Your task to perform on an android device: open app "Spotify: Music and Podcasts" (install if not already installed) and enter user name: "principled@inbox.com" and password: "arrests" Image 0: 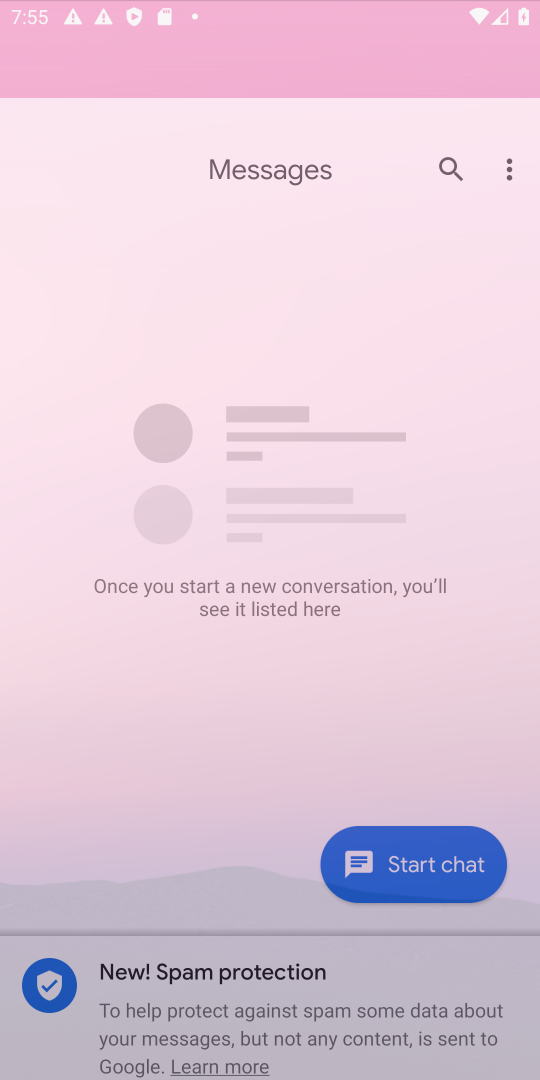
Step 0: press home button
Your task to perform on an android device: open app "Spotify: Music and Podcasts" (install if not already installed) and enter user name: "principled@inbox.com" and password: "arrests" Image 1: 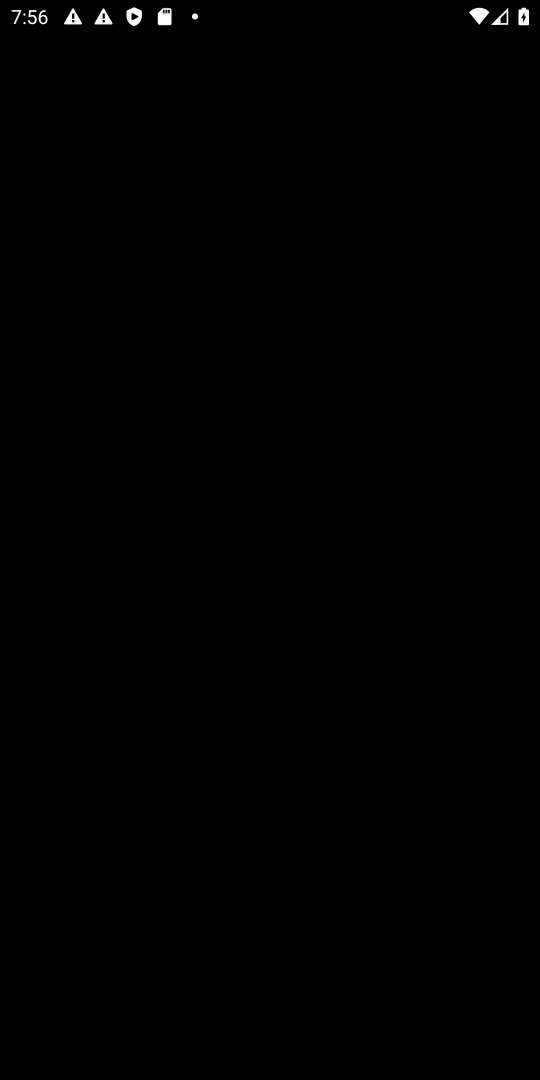
Step 1: press home button
Your task to perform on an android device: open app "Spotify: Music and Podcasts" (install if not already installed) and enter user name: "principled@inbox.com" and password: "arrests" Image 2: 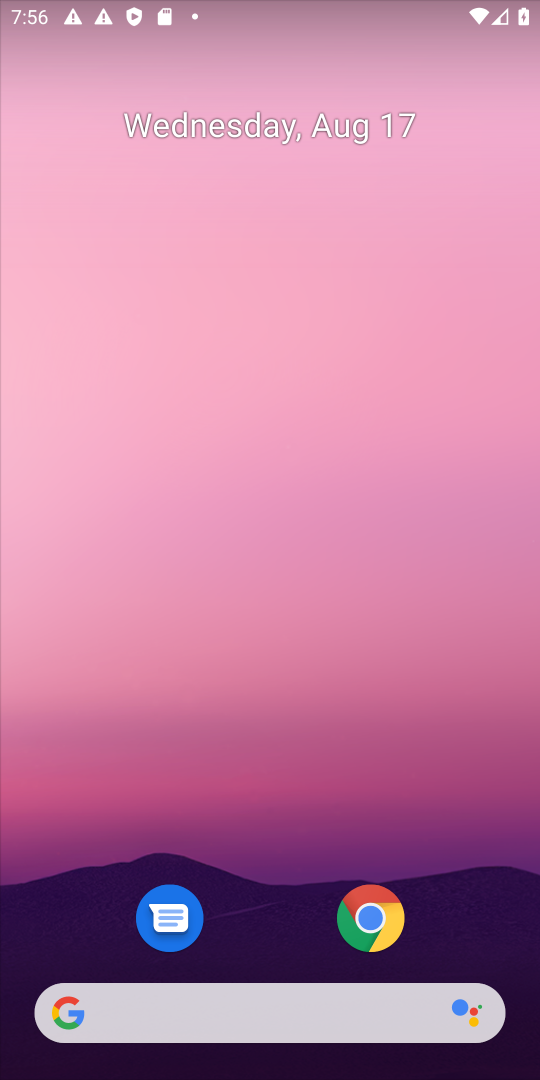
Step 2: drag from (264, 1000) to (474, 290)
Your task to perform on an android device: open app "Spotify: Music and Podcasts" (install if not already installed) and enter user name: "principled@inbox.com" and password: "arrests" Image 3: 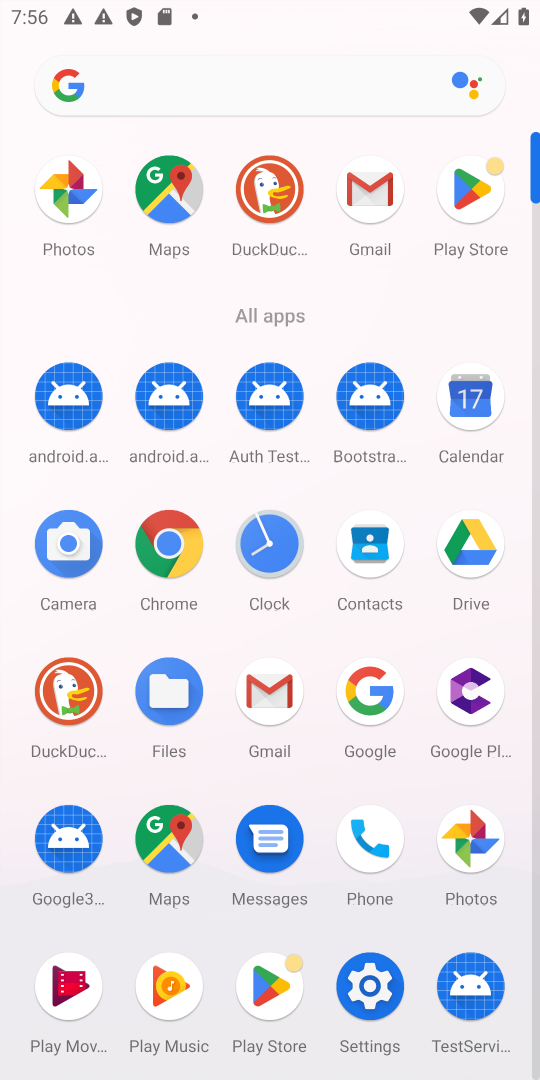
Step 3: drag from (278, 987) to (226, 396)
Your task to perform on an android device: open app "Spotify: Music and Podcasts" (install if not already installed) and enter user name: "principled@inbox.com" and password: "arrests" Image 4: 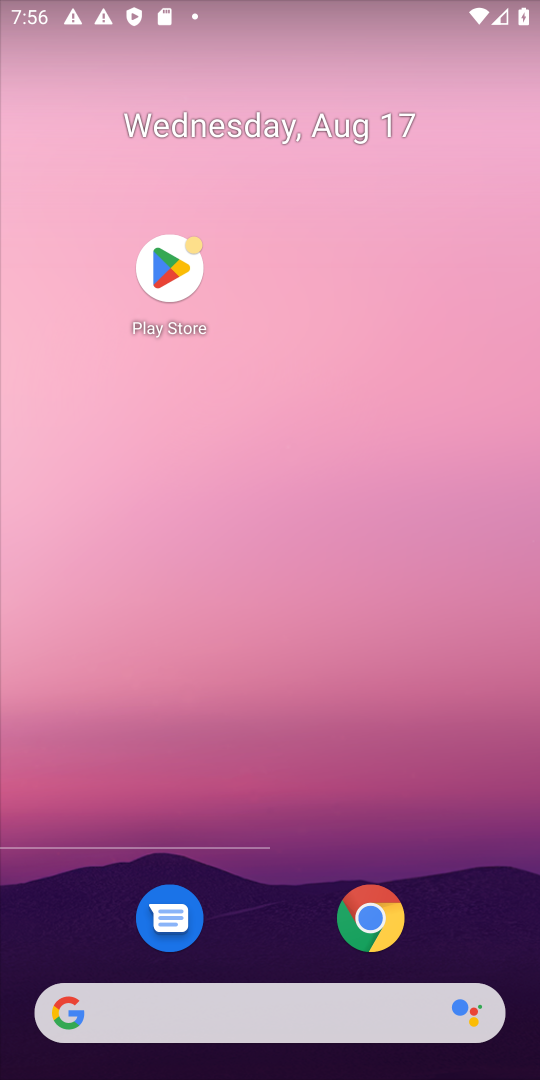
Step 4: drag from (180, 274) to (251, 574)
Your task to perform on an android device: open app "Spotify: Music and Podcasts" (install if not already installed) and enter user name: "principled@inbox.com" and password: "arrests" Image 5: 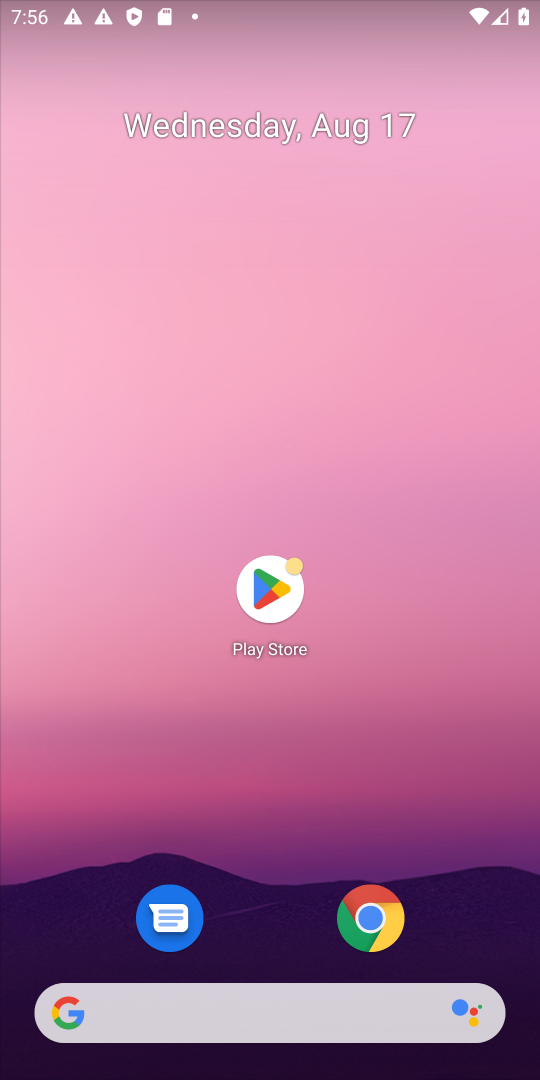
Step 5: click (283, 578)
Your task to perform on an android device: open app "Spotify: Music and Podcasts" (install if not already installed) and enter user name: "principled@inbox.com" and password: "arrests" Image 6: 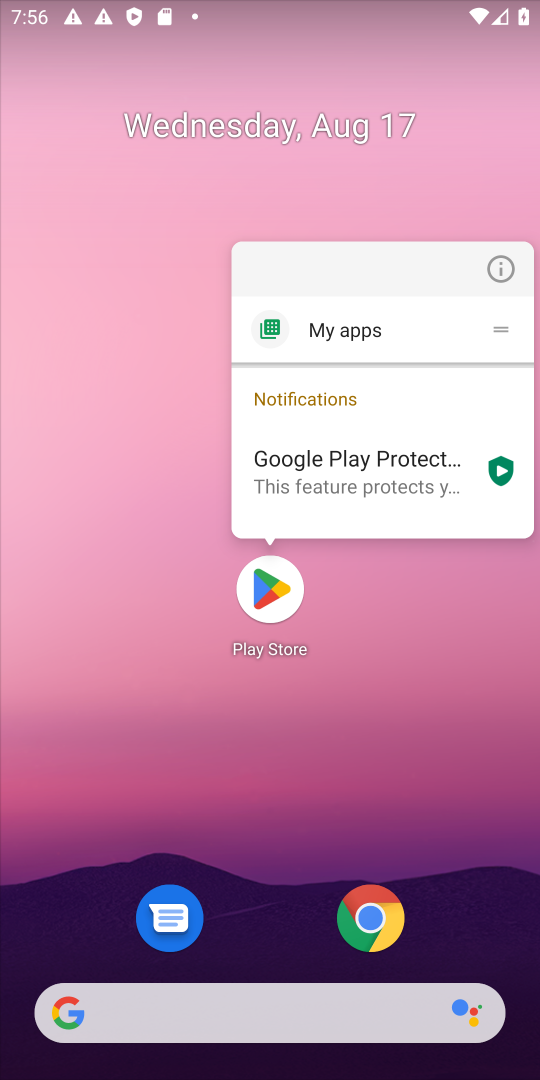
Step 6: click (282, 583)
Your task to perform on an android device: open app "Spotify: Music and Podcasts" (install if not already installed) and enter user name: "principled@inbox.com" and password: "arrests" Image 7: 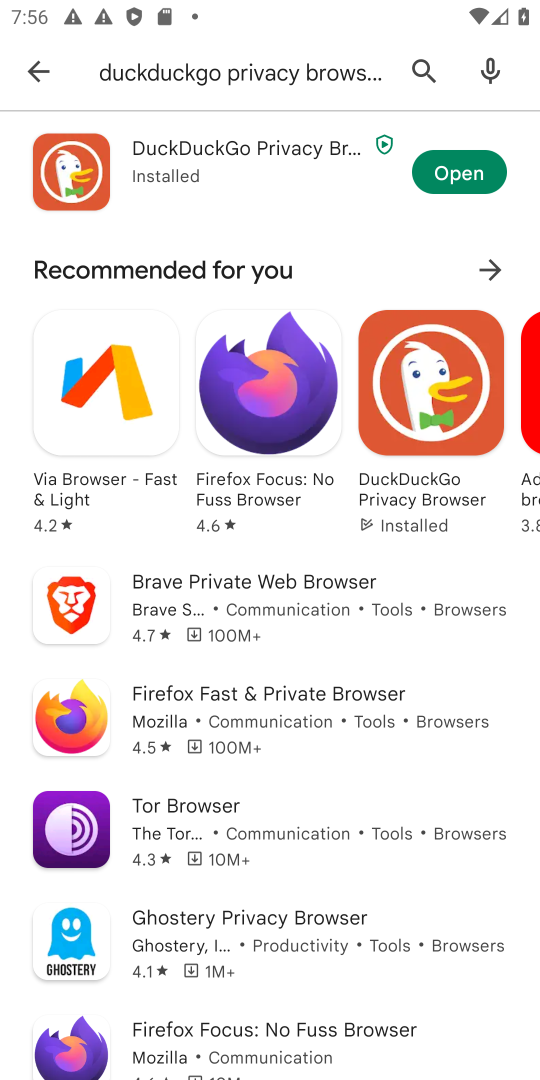
Step 7: click (417, 62)
Your task to perform on an android device: open app "Spotify: Music and Podcasts" (install if not already installed) and enter user name: "principled@inbox.com" and password: "arrests" Image 8: 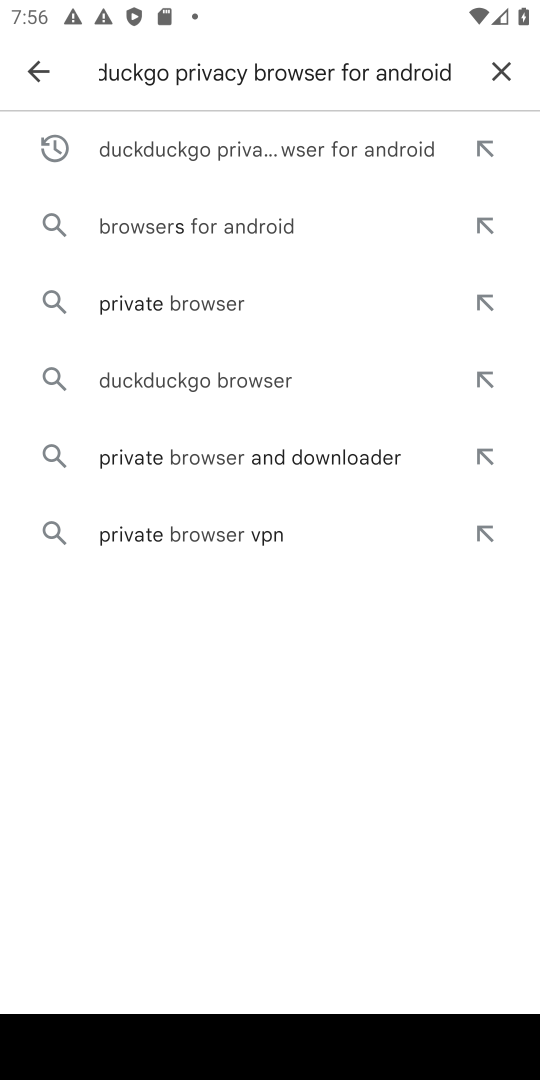
Step 8: click (499, 64)
Your task to perform on an android device: open app "Spotify: Music and Podcasts" (install if not already installed) and enter user name: "principled@inbox.com" and password: "arrests" Image 9: 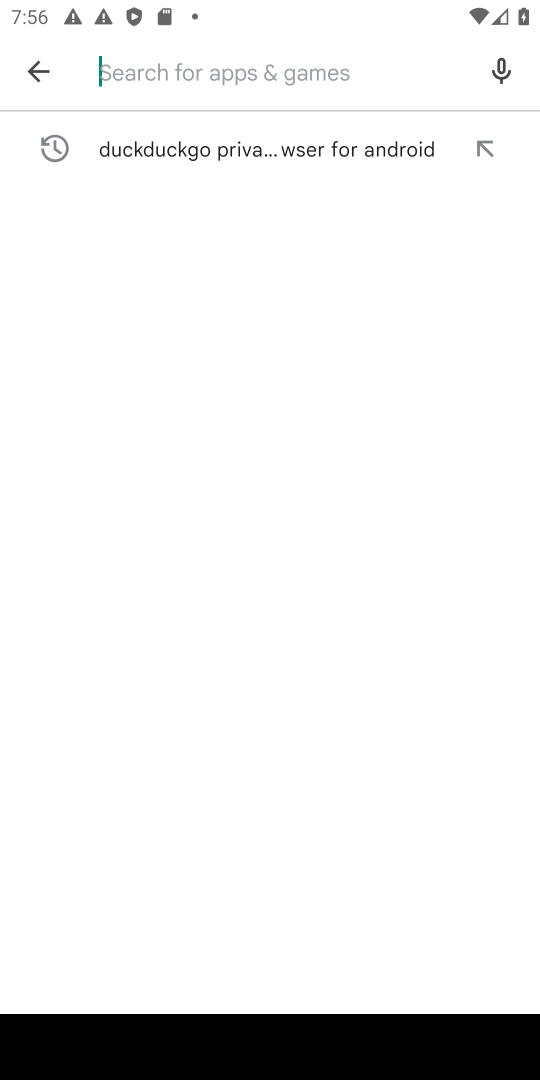
Step 9: type "Spotify: Music and Podcasts"
Your task to perform on an android device: open app "Spotify: Music and Podcasts" (install if not already installed) and enter user name: "principled@inbox.com" and password: "arrests" Image 10: 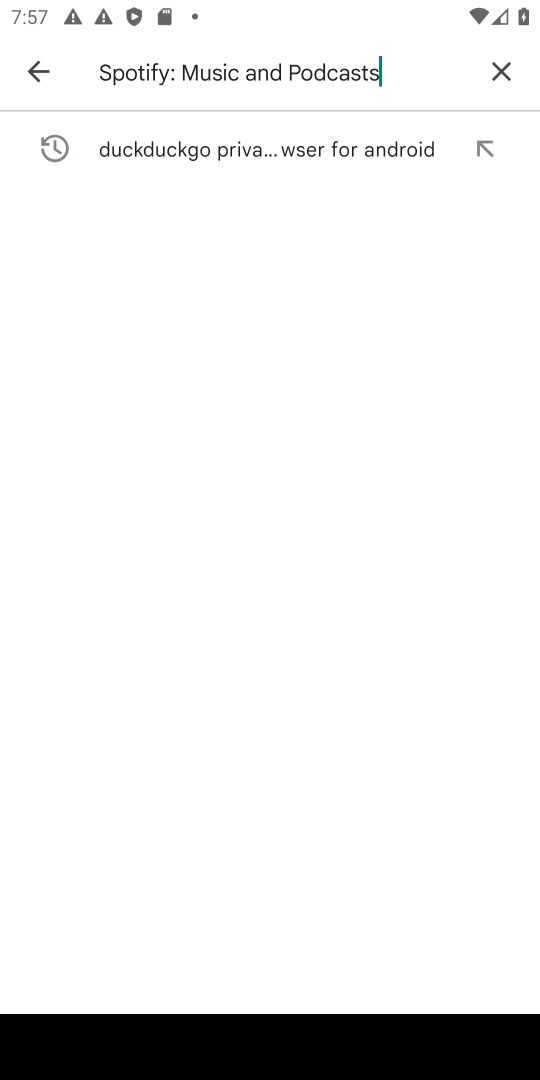
Step 10: press enter
Your task to perform on an android device: open app "Spotify: Music and Podcasts" (install if not already installed) and enter user name: "principled@inbox.com" and password: "arrests" Image 11: 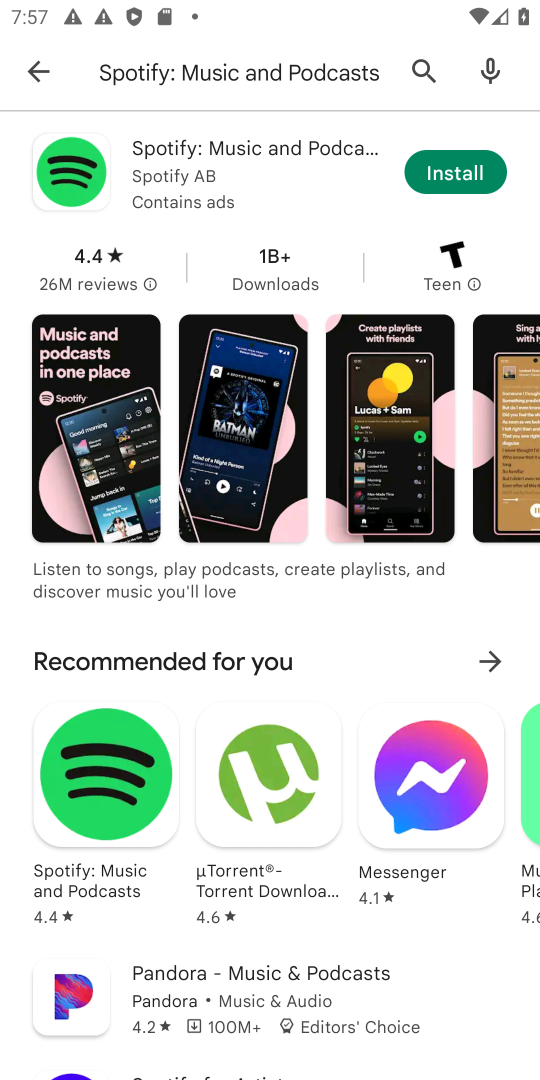
Step 11: click (453, 164)
Your task to perform on an android device: open app "Spotify: Music and Podcasts" (install if not already installed) and enter user name: "principled@inbox.com" and password: "arrests" Image 12: 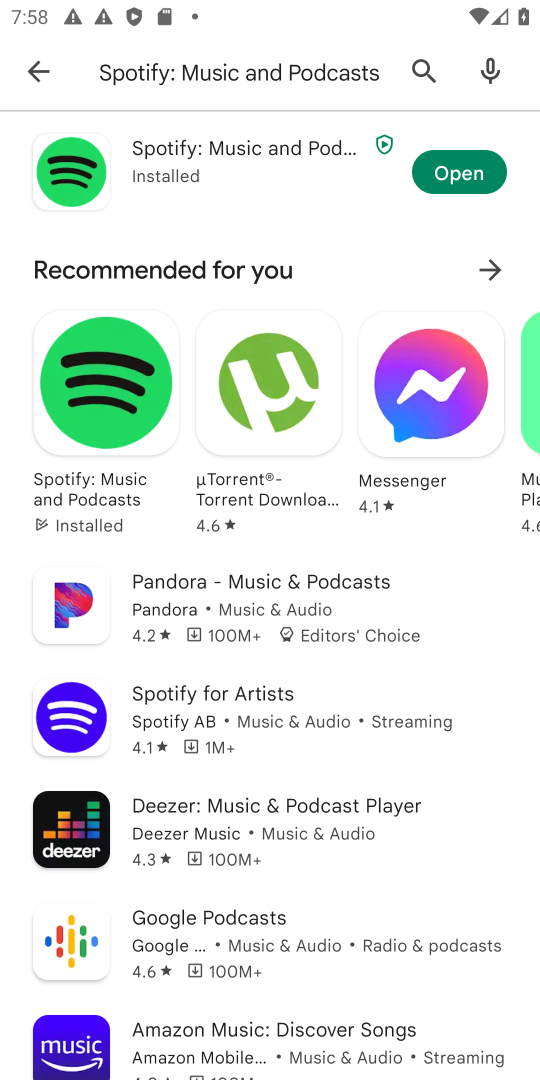
Step 12: click (460, 167)
Your task to perform on an android device: open app "Spotify: Music and Podcasts" (install if not already installed) and enter user name: "principled@inbox.com" and password: "arrests" Image 13: 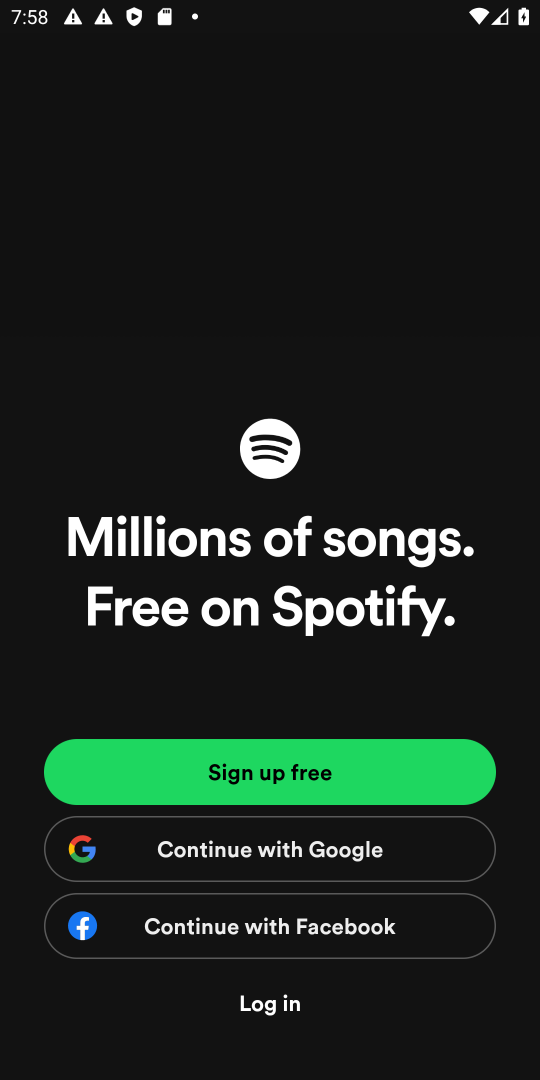
Step 13: click (259, 1004)
Your task to perform on an android device: open app "Spotify: Music and Podcasts" (install if not already installed) and enter user name: "principled@inbox.com" and password: "arrests" Image 14: 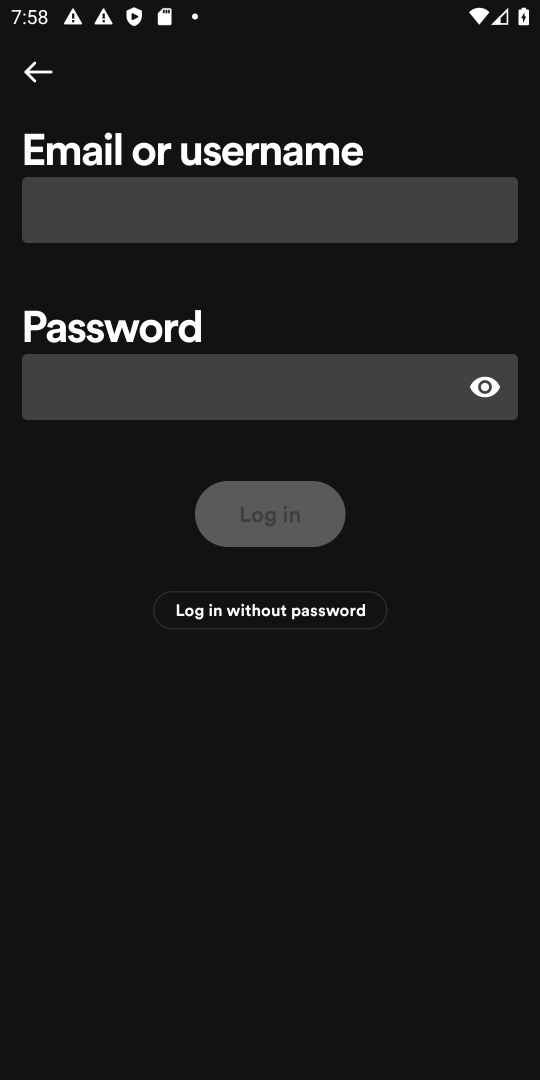
Step 14: click (155, 220)
Your task to perform on an android device: open app "Spotify: Music and Podcasts" (install if not already installed) and enter user name: "principled@inbox.com" and password: "arrests" Image 15: 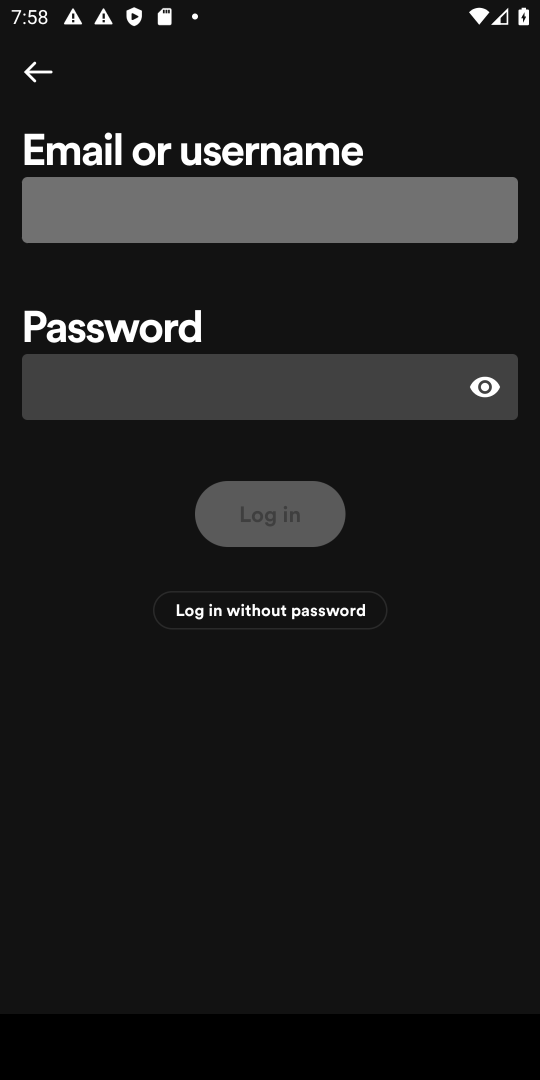
Step 15: type "principled@inbox.com"
Your task to perform on an android device: open app "Spotify: Music and Podcasts" (install if not already installed) and enter user name: "principled@inbox.com" and password: "arrests" Image 16: 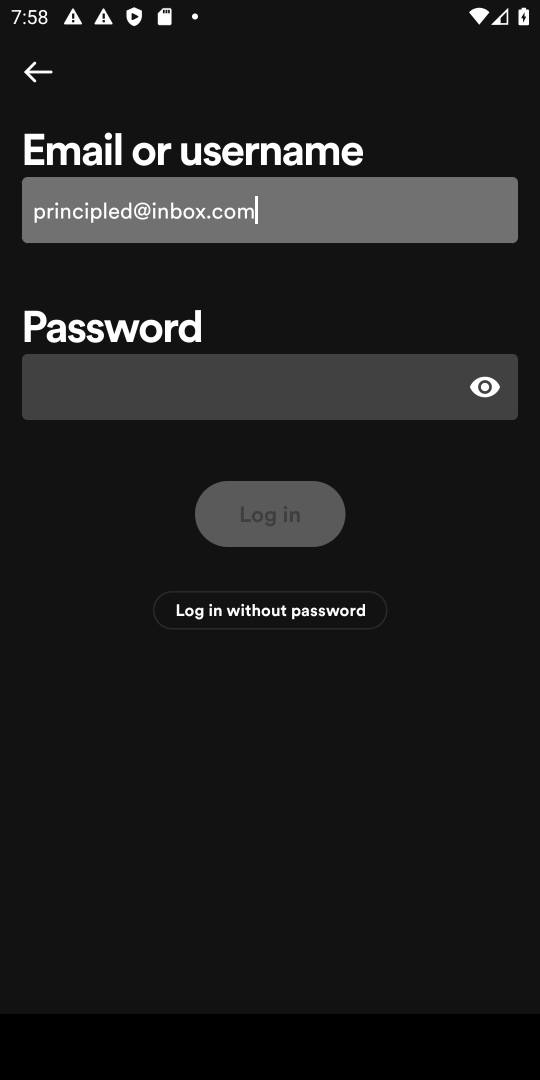
Step 16: click (194, 381)
Your task to perform on an android device: open app "Spotify: Music and Podcasts" (install if not already installed) and enter user name: "principled@inbox.com" and password: "arrests" Image 17: 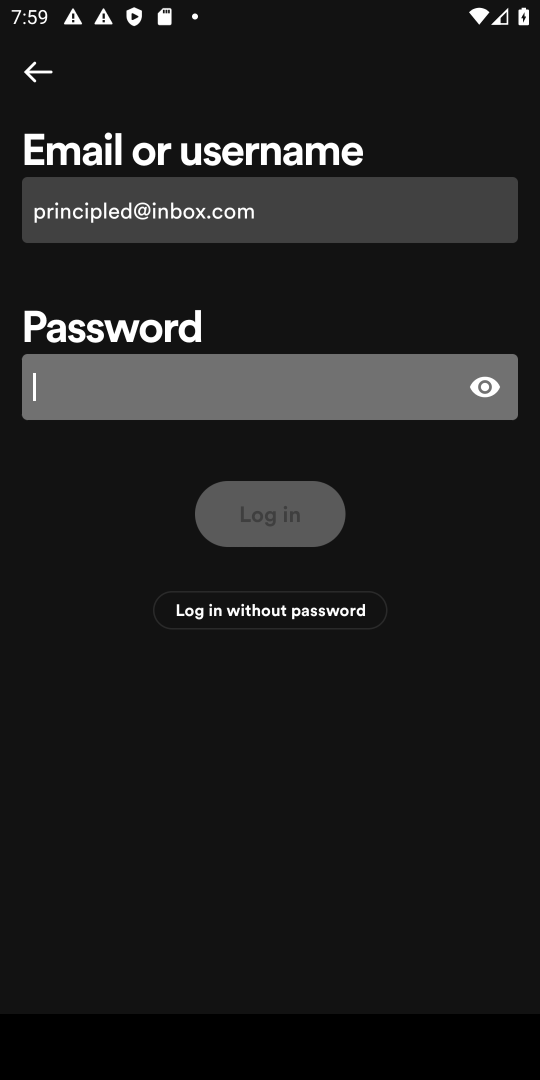
Step 17: type "arrests"
Your task to perform on an android device: open app "Spotify: Music and Podcasts" (install if not already installed) and enter user name: "principled@inbox.com" and password: "arrests" Image 18: 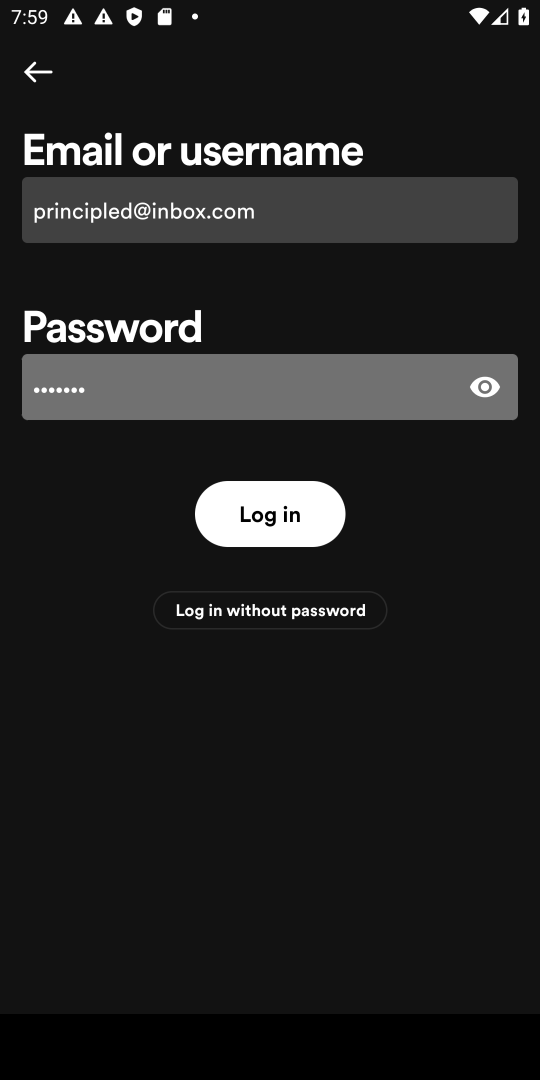
Step 18: task complete